Your task to perform on an android device: Go to notification settings Image 0: 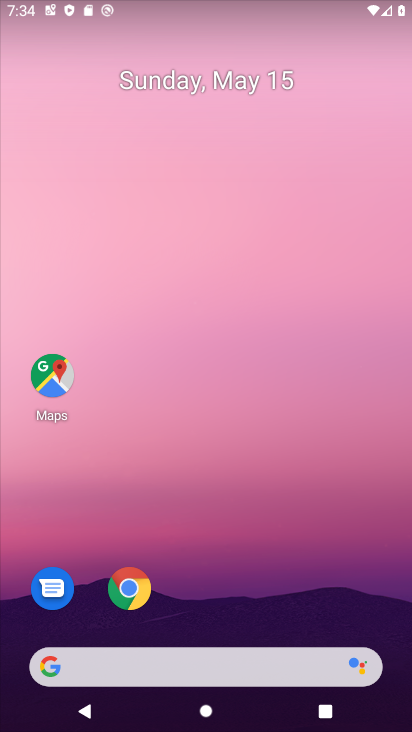
Step 0: drag from (229, 625) to (271, 57)
Your task to perform on an android device: Go to notification settings Image 1: 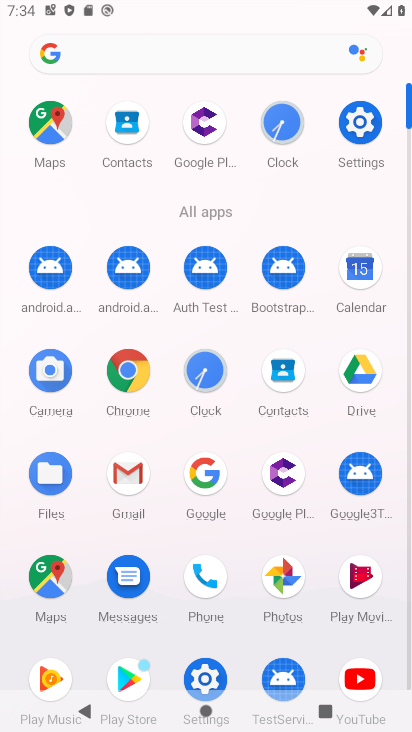
Step 1: click (355, 113)
Your task to perform on an android device: Go to notification settings Image 2: 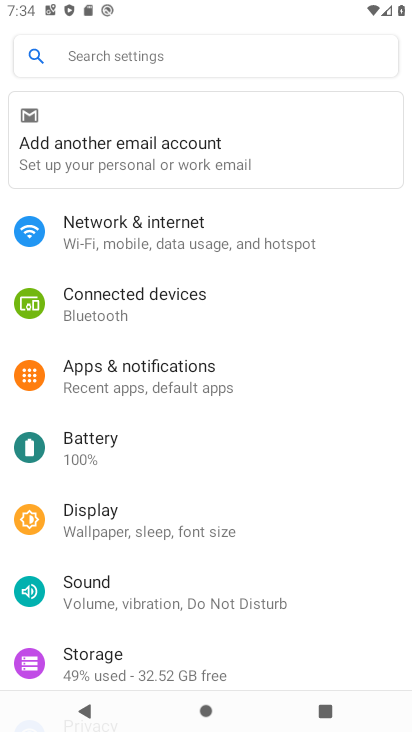
Step 2: click (175, 368)
Your task to perform on an android device: Go to notification settings Image 3: 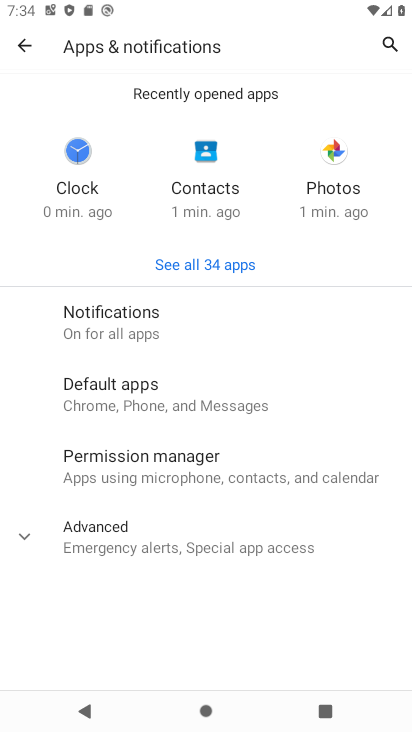
Step 3: click (129, 336)
Your task to perform on an android device: Go to notification settings Image 4: 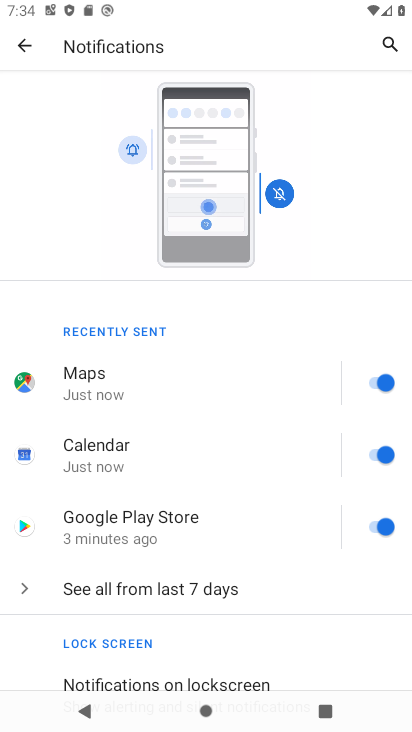
Step 4: drag from (217, 650) to (213, 226)
Your task to perform on an android device: Go to notification settings Image 5: 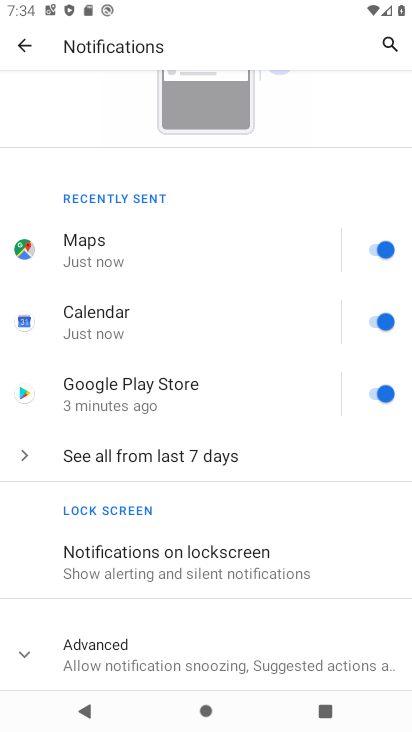
Step 5: click (31, 647)
Your task to perform on an android device: Go to notification settings Image 6: 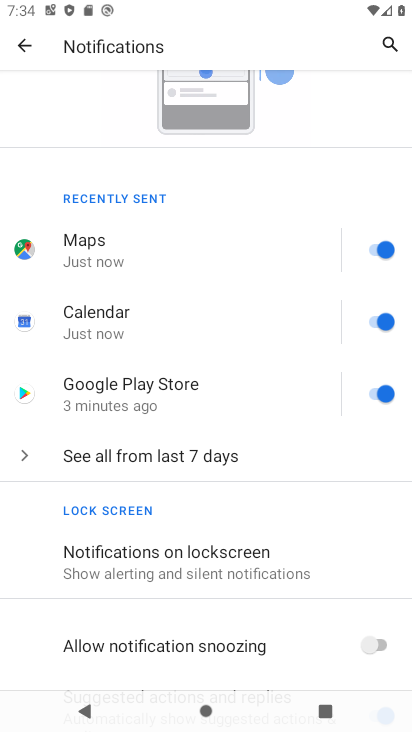
Step 6: task complete